Your task to perform on an android device: open wifi settings Image 0: 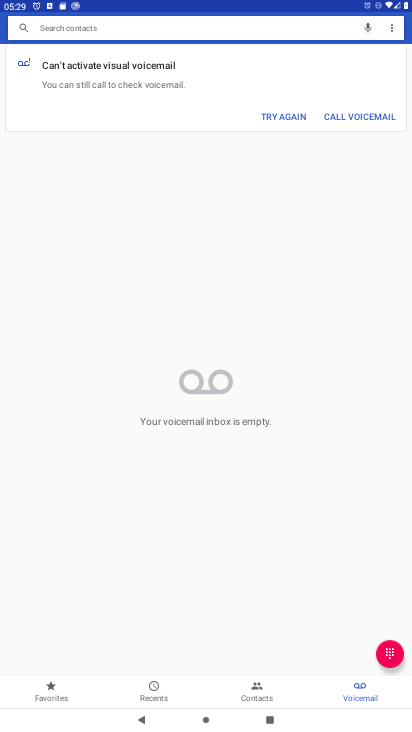
Step 0: press home button
Your task to perform on an android device: open wifi settings Image 1: 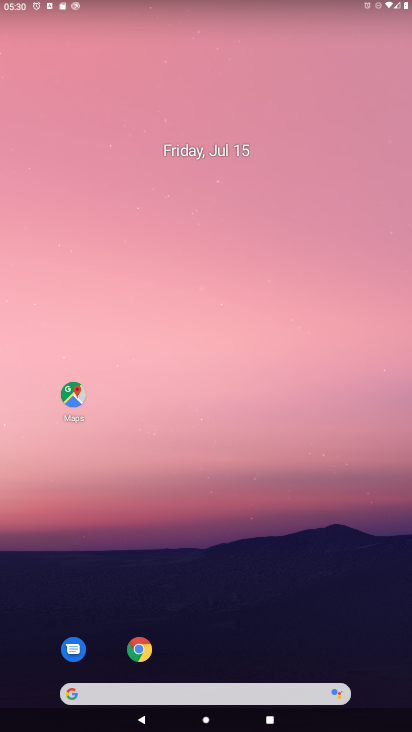
Step 1: drag from (382, 658) to (340, 106)
Your task to perform on an android device: open wifi settings Image 2: 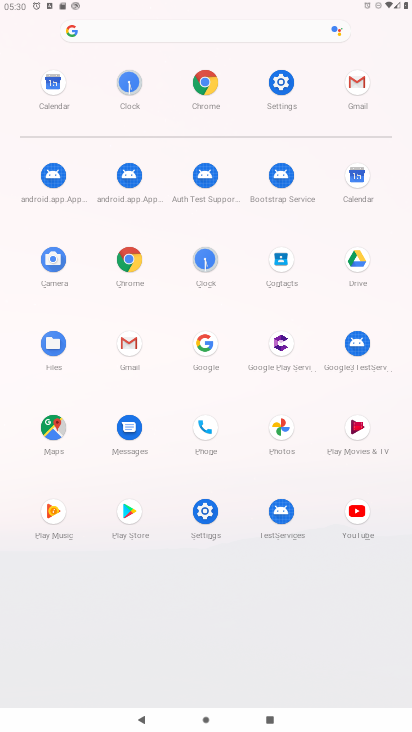
Step 2: click (203, 509)
Your task to perform on an android device: open wifi settings Image 3: 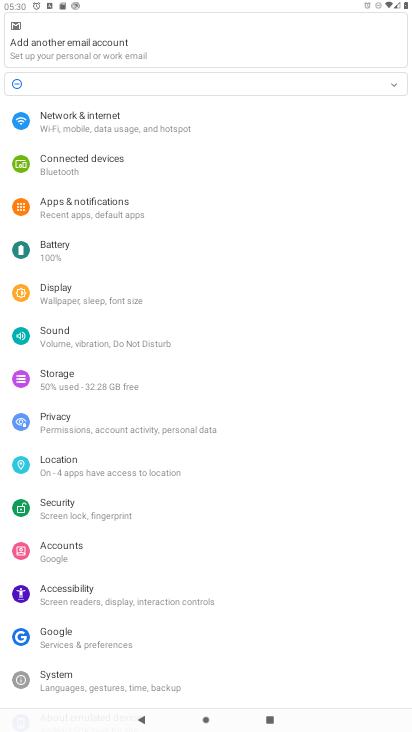
Step 3: click (72, 121)
Your task to perform on an android device: open wifi settings Image 4: 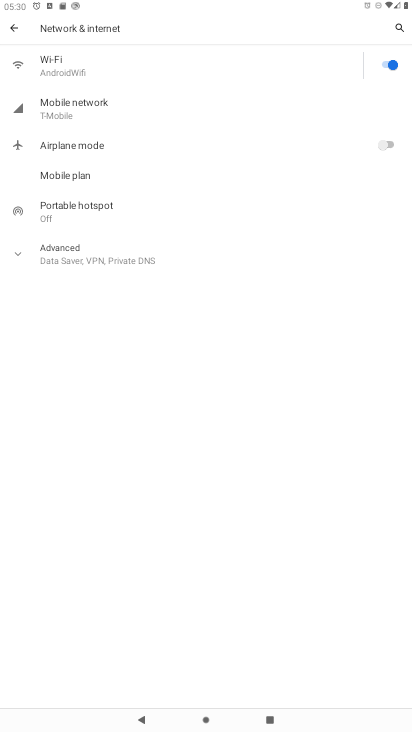
Step 4: click (54, 62)
Your task to perform on an android device: open wifi settings Image 5: 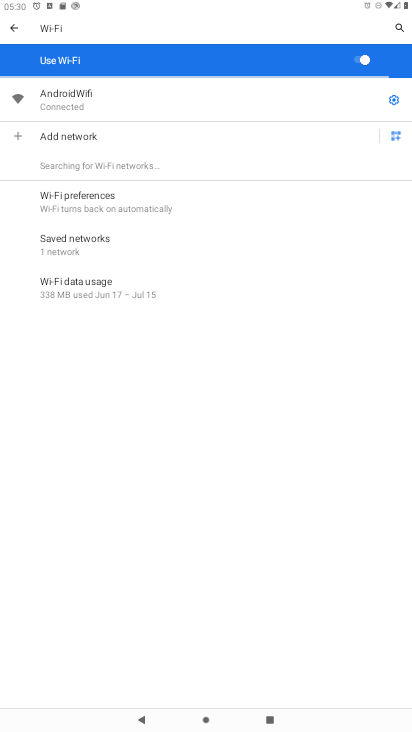
Step 5: task complete